Your task to perform on an android device: clear all cookies in the chrome app Image 0: 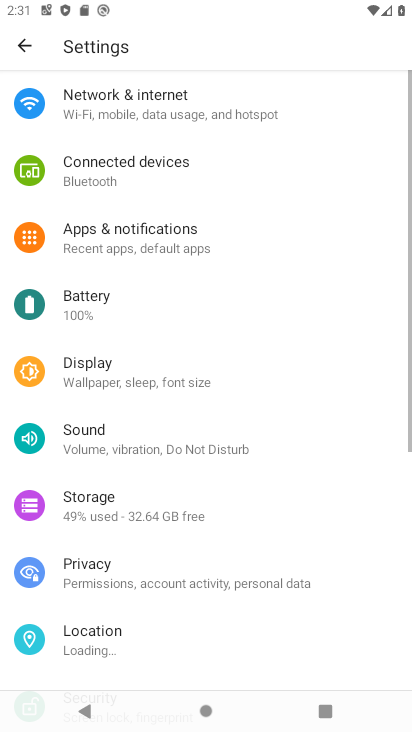
Step 0: press home button
Your task to perform on an android device: clear all cookies in the chrome app Image 1: 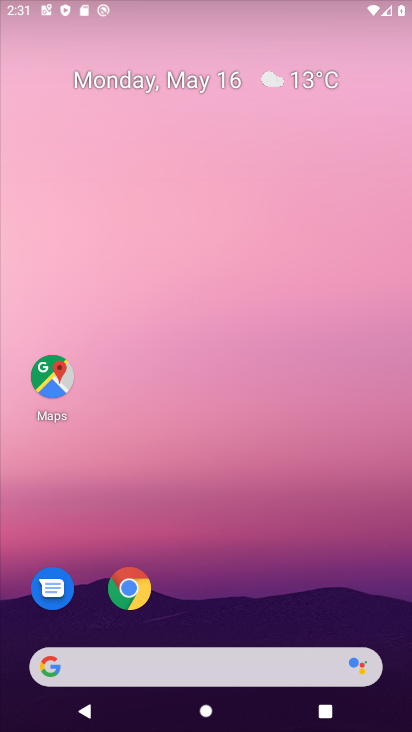
Step 1: drag from (290, 633) to (276, 175)
Your task to perform on an android device: clear all cookies in the chrome app Image 2: 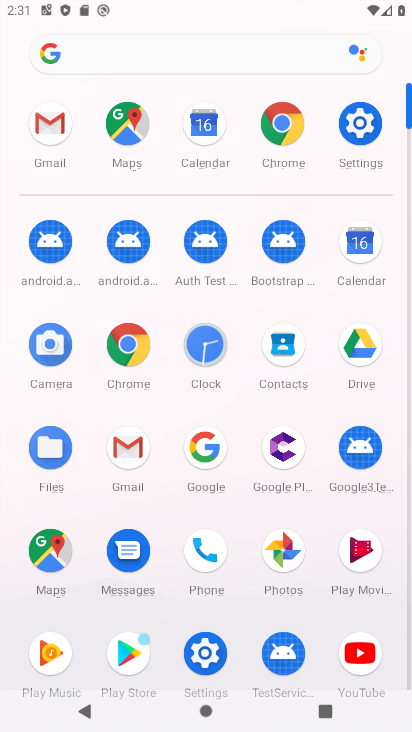
Step 2: click (124, 361)
Your task to perform on an android device: clear all cookies in the chrome app Image 3: 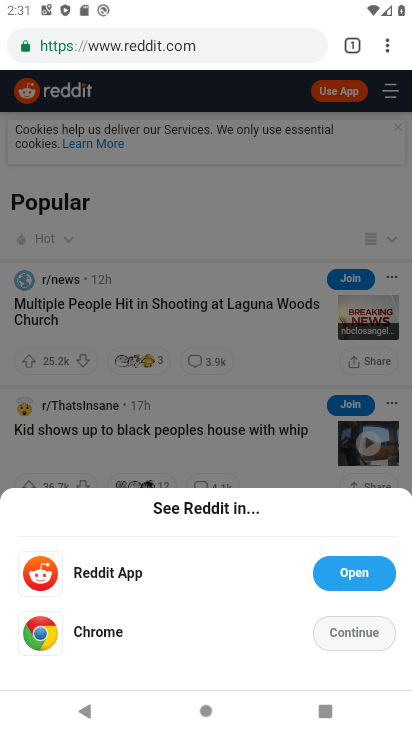
Step 3: click (382, 40)
Your task to perform on an android device: clear all cookies in the chrome app Image 4: 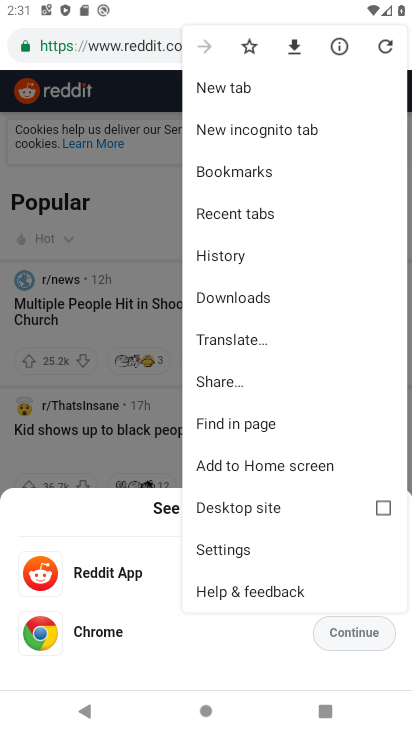
Step 4: click (250, 549)
Your task to perform on an android device: clear all cookies in the chrome app Image 5: 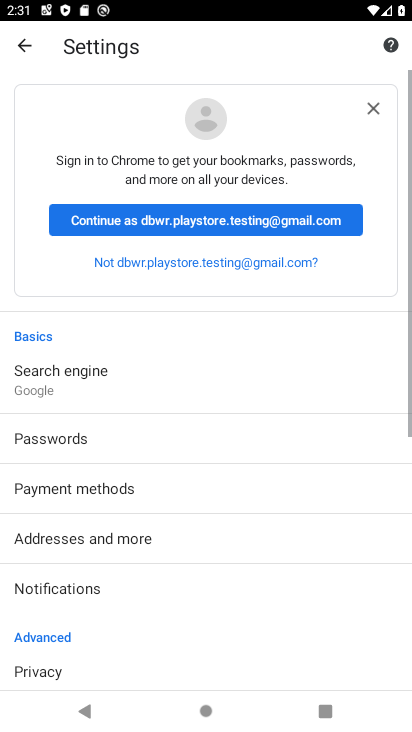
Step 5: drag from (221, 631) to (239, 189)
Your task to perform on an android device: clear all cookies in the chrome app Image 6: 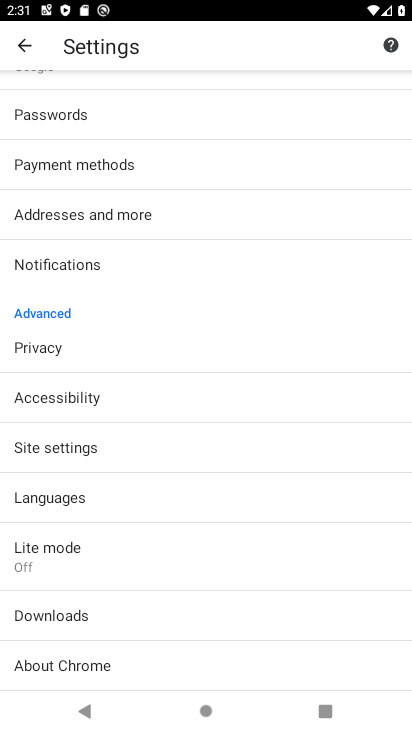
Step 6: click (46, 454)
Your task to perform on an android device: clear all cookies in the chrome app Image 7: 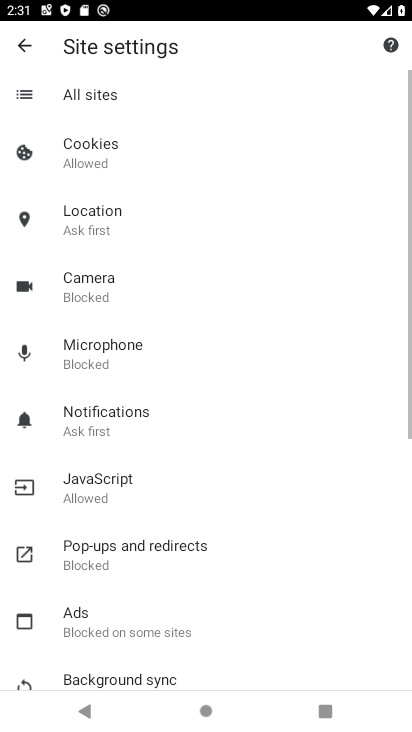
Step 7: click (124, 147)
Your task to perform on an android device: clear all cookies in the chrome app Image 8: 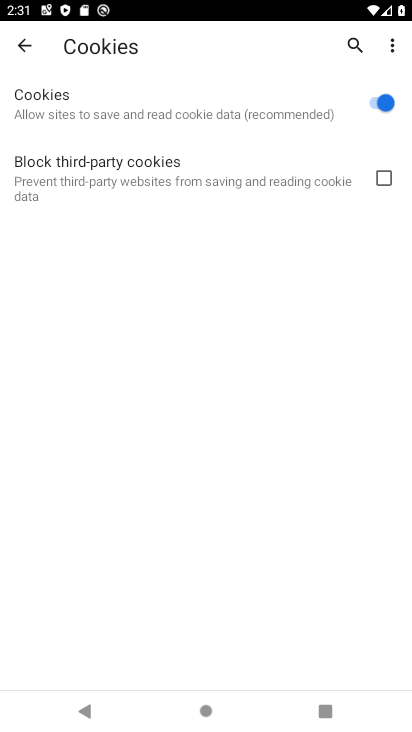
Step 8: press back button
Your task to perform on an android device: clear all cookies in the chrome app Image 9: 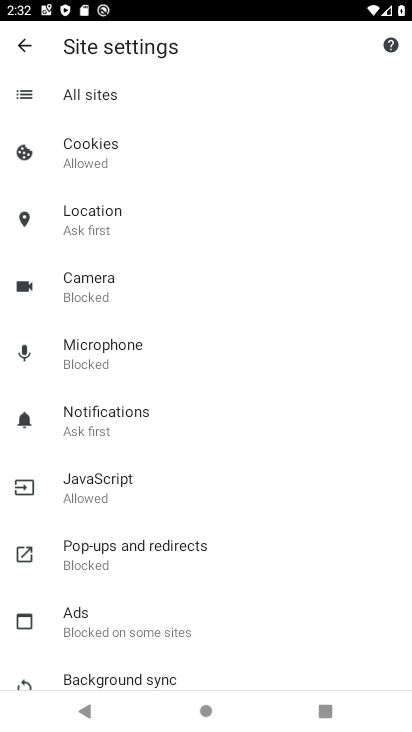
Step 9: press back button
Your task to perform on an android device: clear all cookies in the chrome app Image 10: 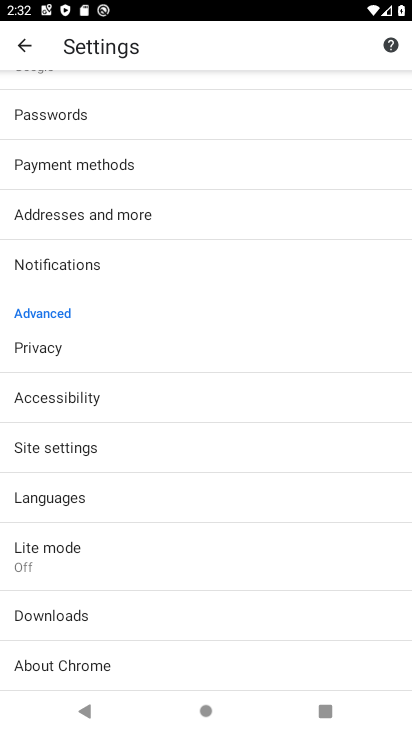
Step 10: click (76, 342)
Your task to perform on an android device: clear all cookies in the chrome app Image 11: 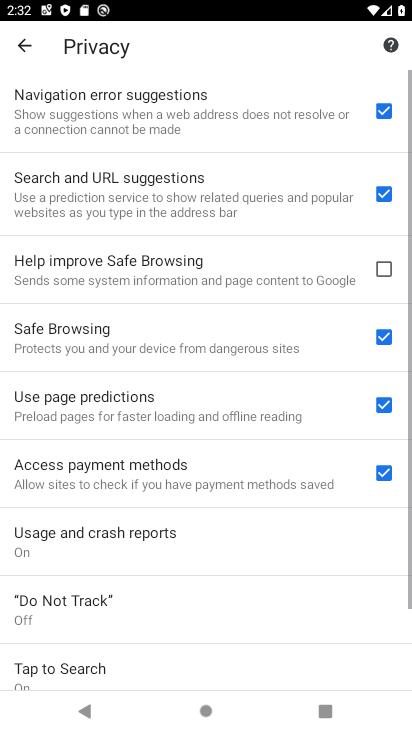
Step 11: drag from (230, 626) to (405, 15)
Your task to perform on an android device: clear all cookies in the chrome app Image 12: 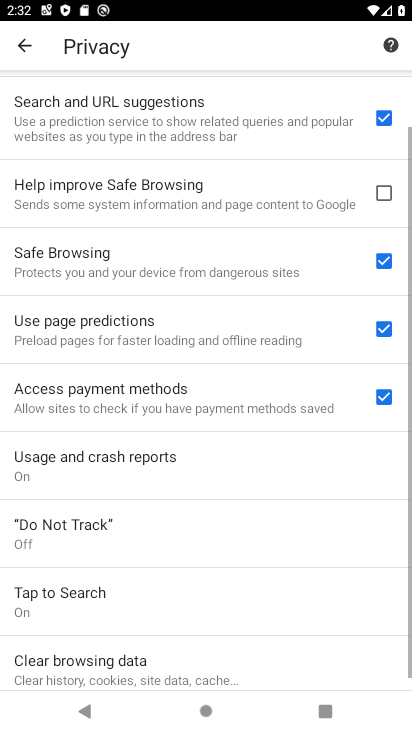
Step 12: click (169, 669)
Your task to perform on an android device: clear all cookies in the chrome app Image 13: 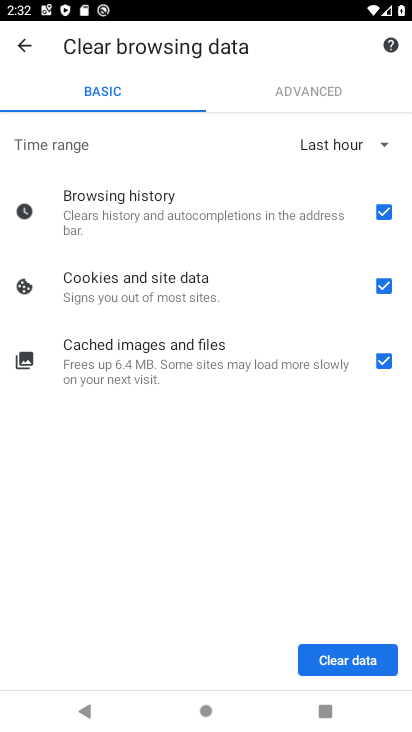
Step 13: click (363, 661)
Your task to perform on an android device: clear all cookies in the chrome app Image 14: 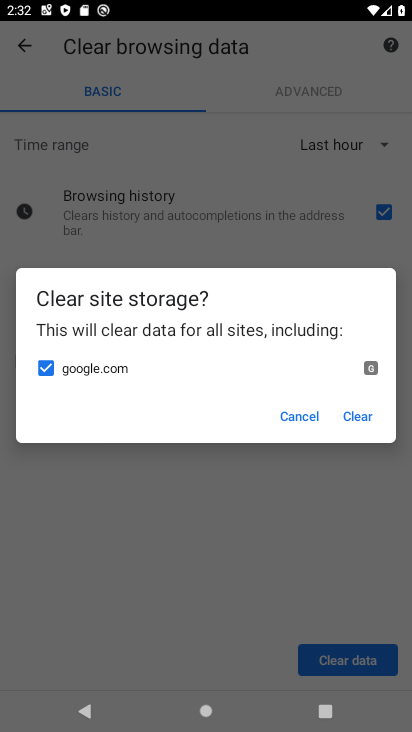
Step 14: click (360, 412)
Your task to perform on an android device: clear all cookies in the chrome app Image 15: 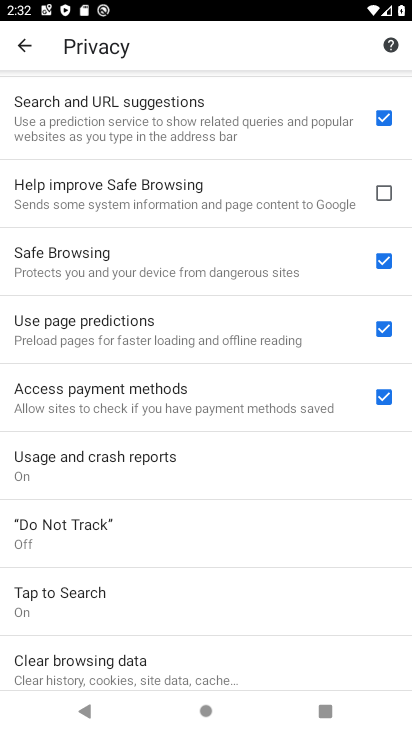
Step 15: task complete